Your task to perform on an android device: turn on javascript in the chrome app Image 0: 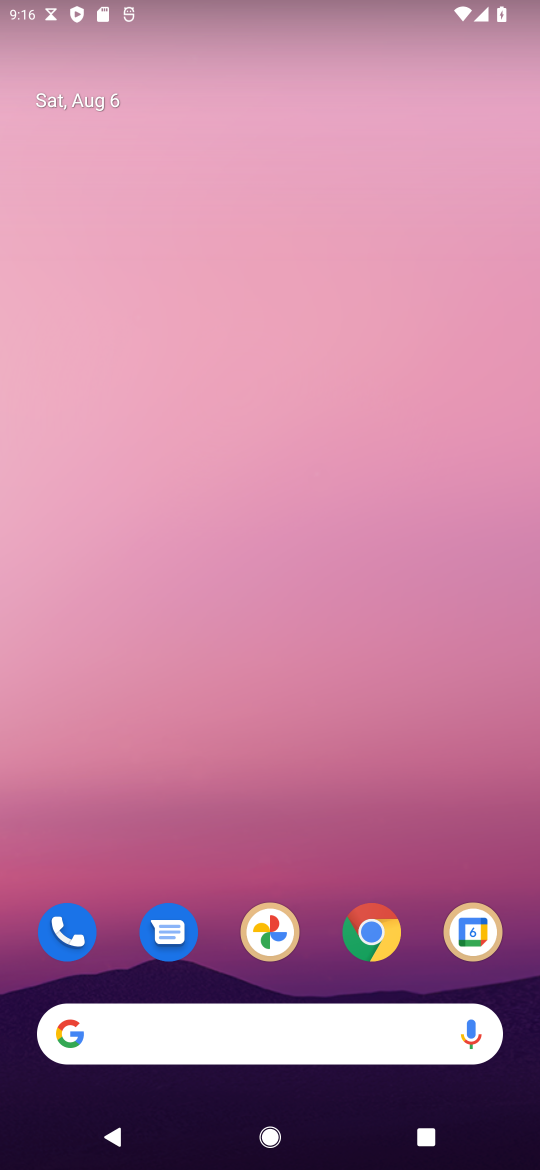
Step 0: click (374, 931)
Your task to perform on an android device: turn on javascript in the chrome app Image 1: 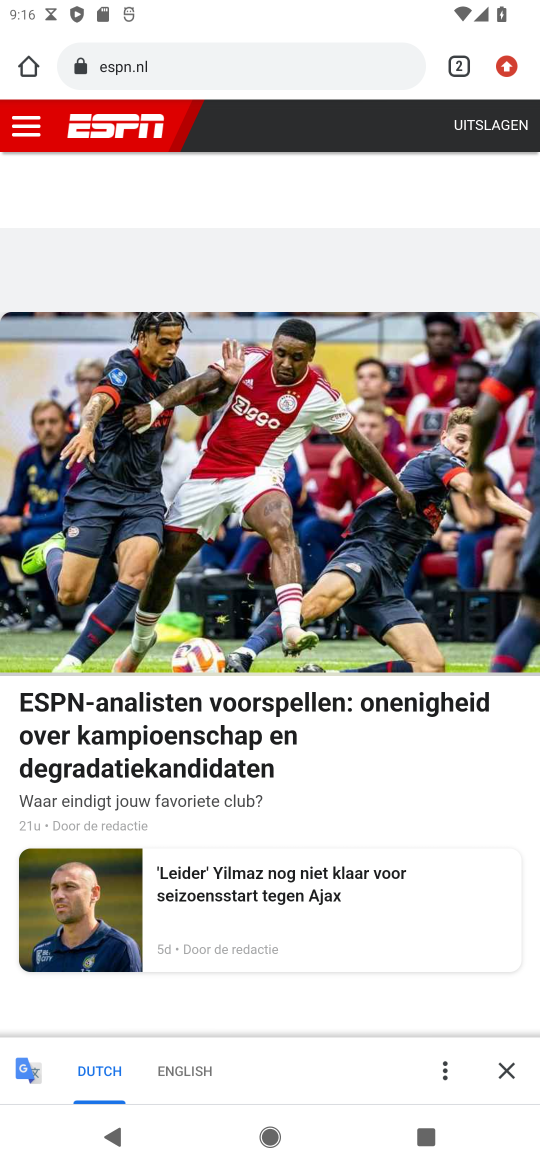
Step 1: click (502, 66)
Your task to perform on an android device: turn on javascript in the chrome app Image 2: 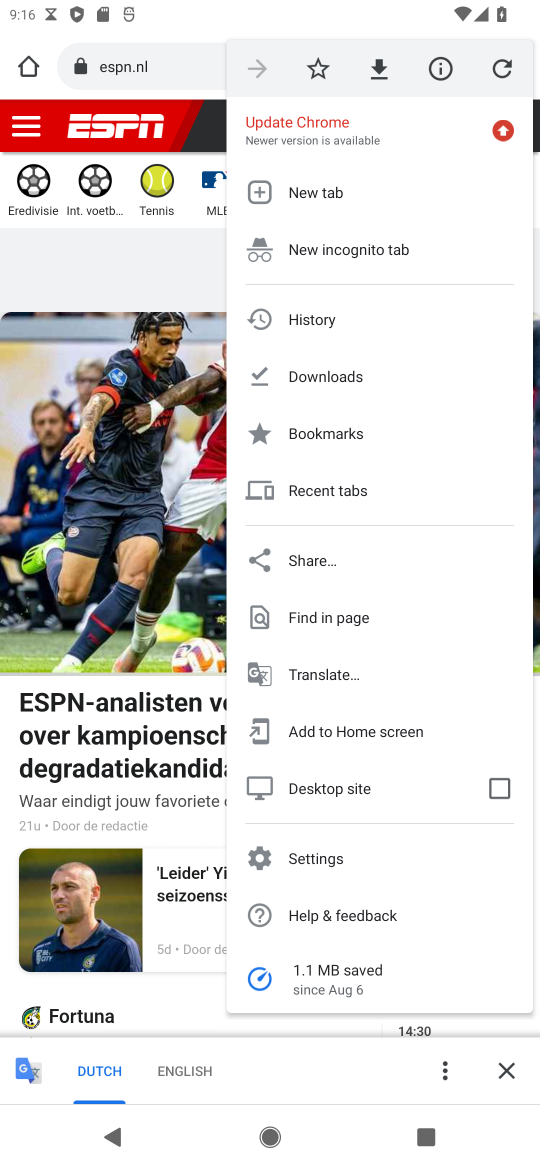
Step 2: click (339, 863)
Your task to perform on an android device: turn on javascript in the chrome app Image 3: 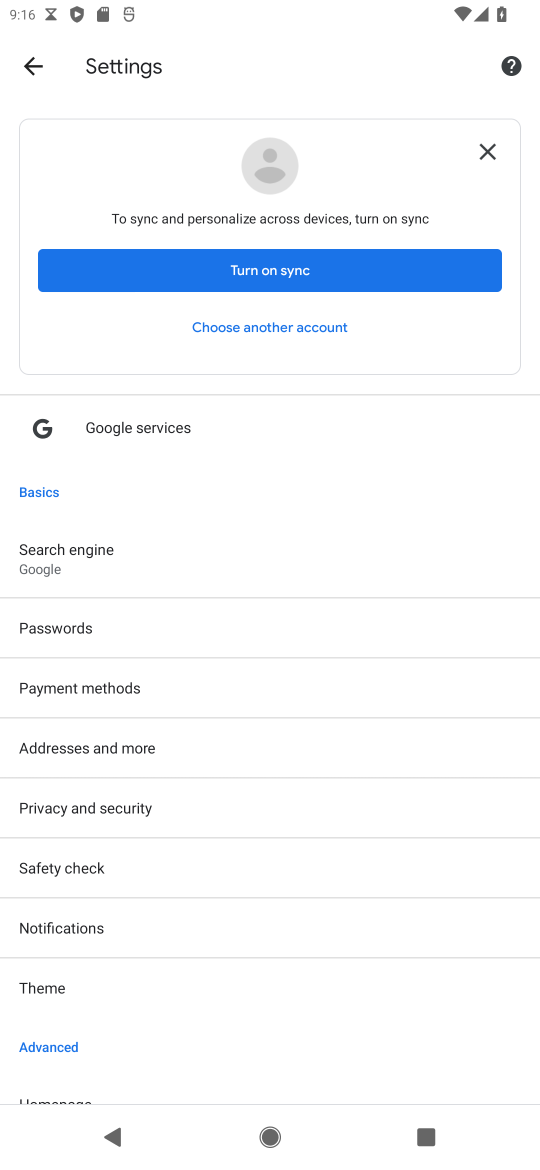
Step 3: drag from (118, 1040) to (205, 824)
Your task to perform on an android device: turn on javascript in the chrome app Image 4: 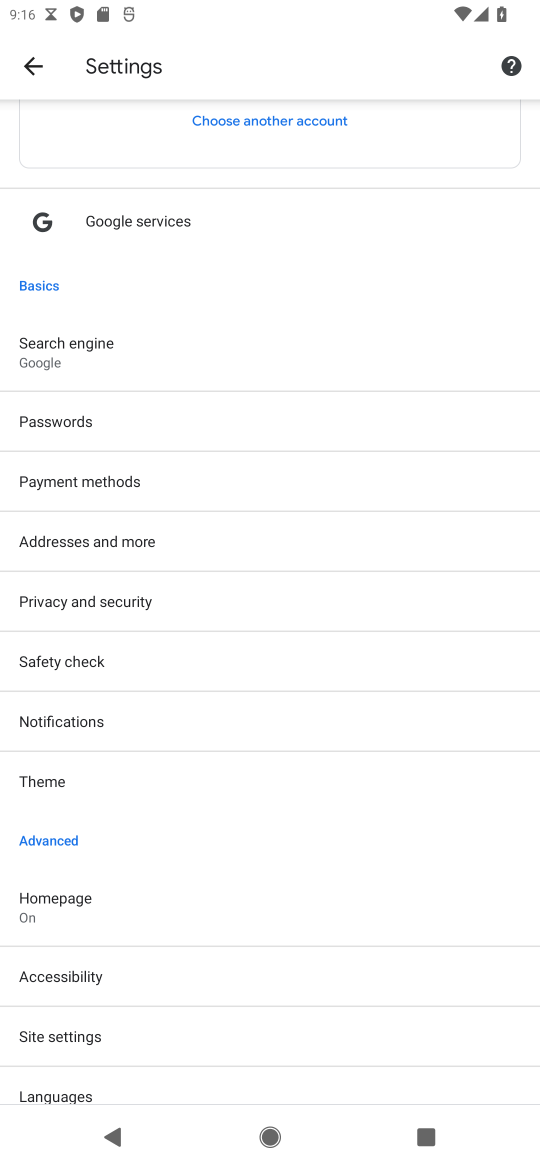
Step 4: click (65, 1030)
Your task to perform on an android device: turn on javascript in the chrome app Image 5: 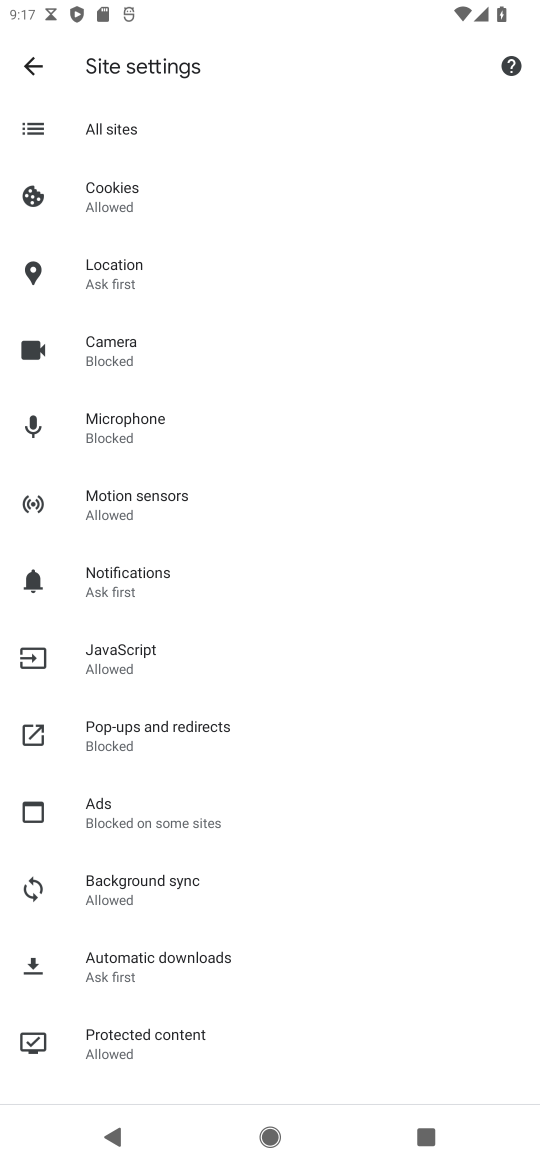
Step 5: click (122, 650)
Your task to perform on an android device: turn on javascript in the chrome app Image 6: 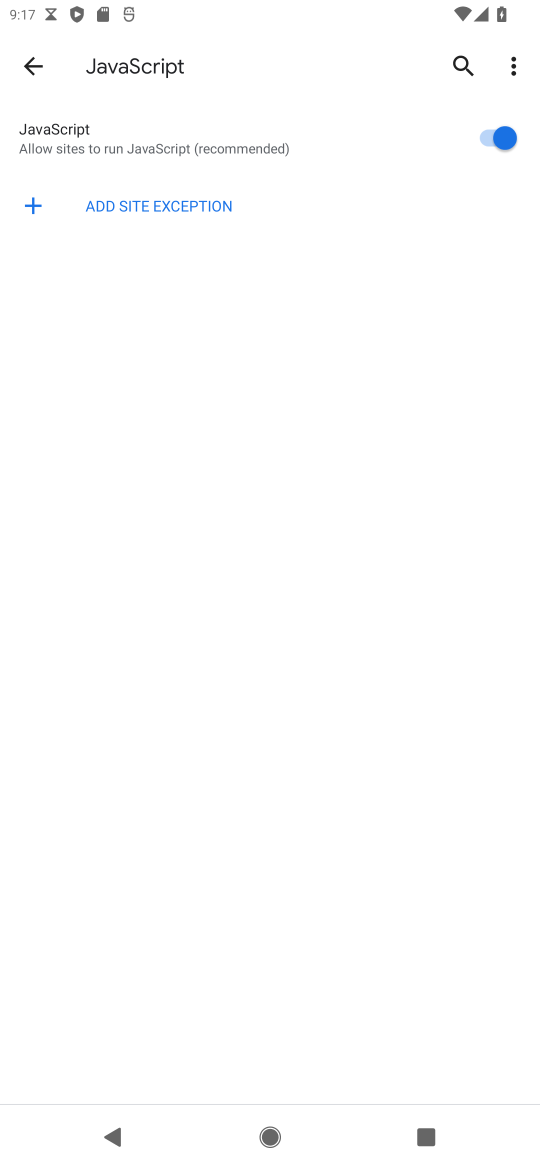
Step 6: task complete